Your task to perform on an android device: check android version Image 0: 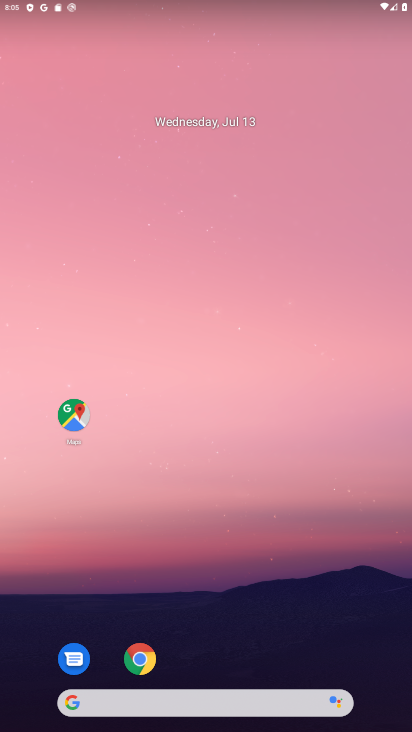
Step 0: drag from (310, 594) to (321, 106)
Your task to perform on an android device: check android version Image 1: 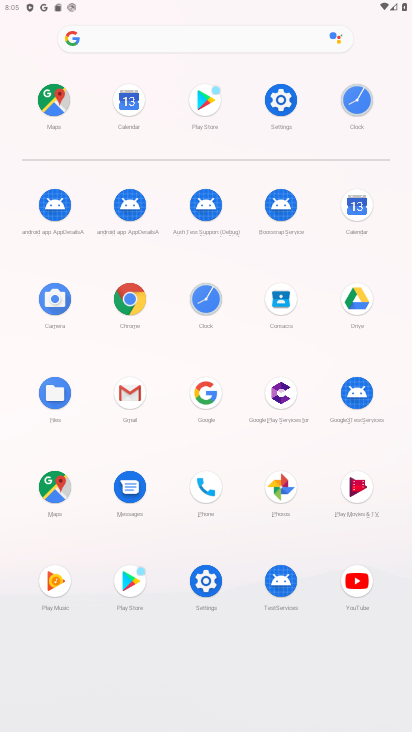
Step 1: click (267, 125)
Your task to perform on an android device: check android version Image 2: 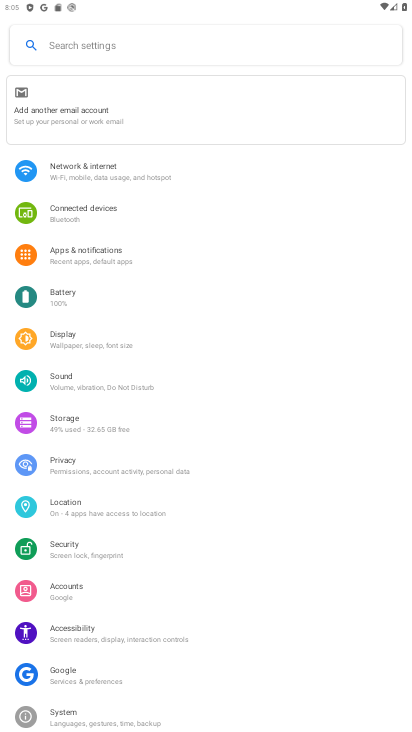
Step 2: drag from (144, 689) to (152, 617)
Your task to perform on an android device: check android version Image 3: 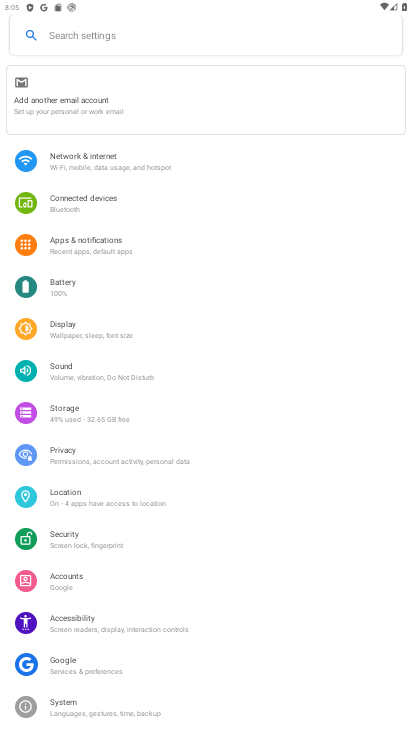
Step 3: click (104, 695)
Your task to perform on an android device: check android version Image 4: 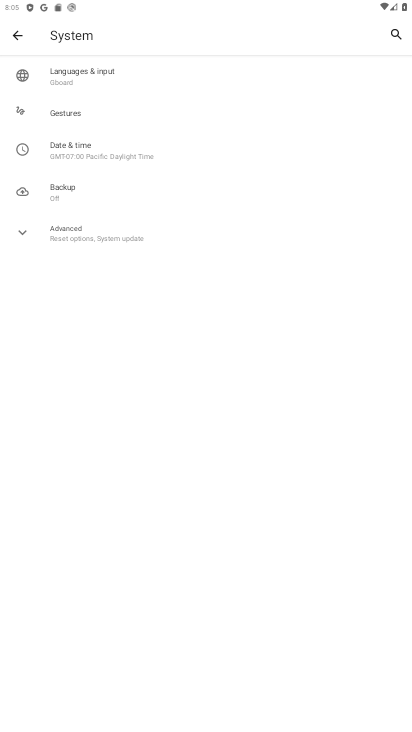
Step 4: task complete